Your task to perform on an android device: move an email to a new category in the gmail app Image 0: 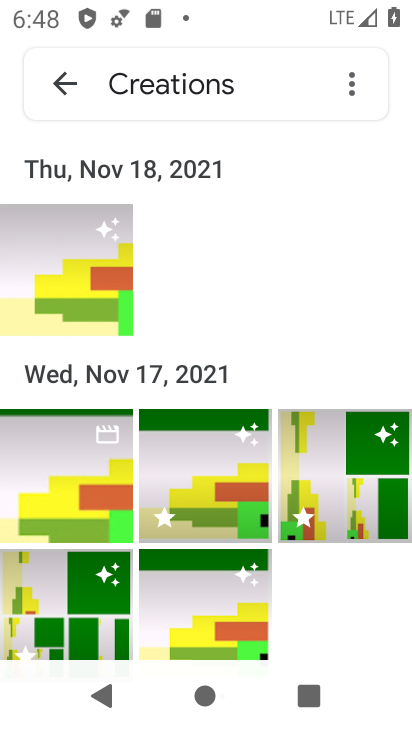
Step 0: press home button
Your task to perform on an android device: move an email to a new category in the gmail app Image 1: 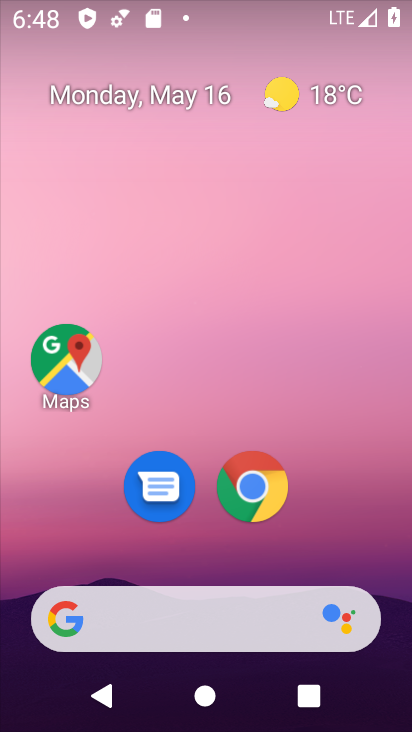
Step 1: drag from (361, 510) to (259, 124)
Your task to perform on an android device: move an email to a new category in the gmail app Image 2: 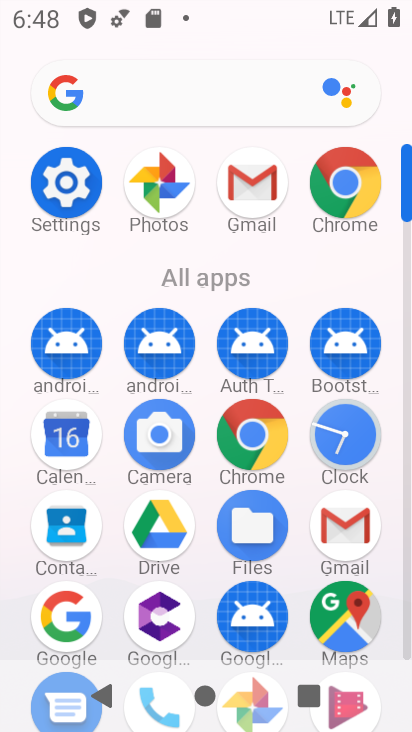
Step 2: click (248, 190)
Your task to perform on an android device: move an email to a new category in the gmail app Image 3: 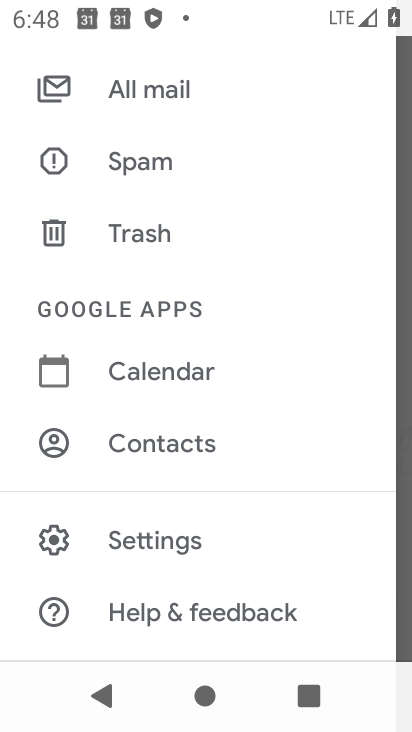
Step 3: click (177, 87)
Your task to perform on an android device: move an email to a new category in the gmail app Image 4: 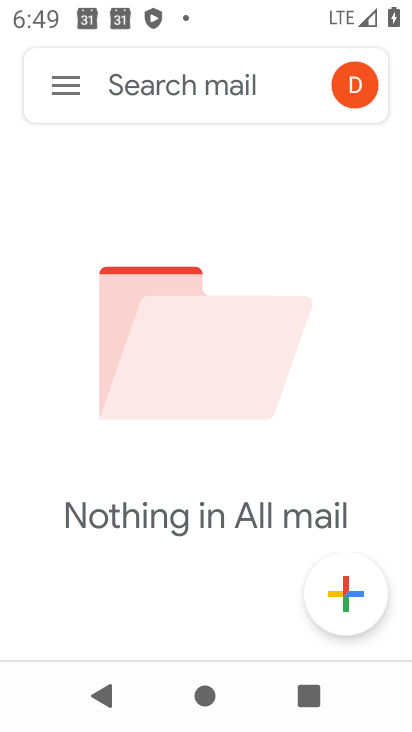
Step 4: click (62, 84)
Your task to perform on an android device: move an email to a new category in the gmail app Image 5: 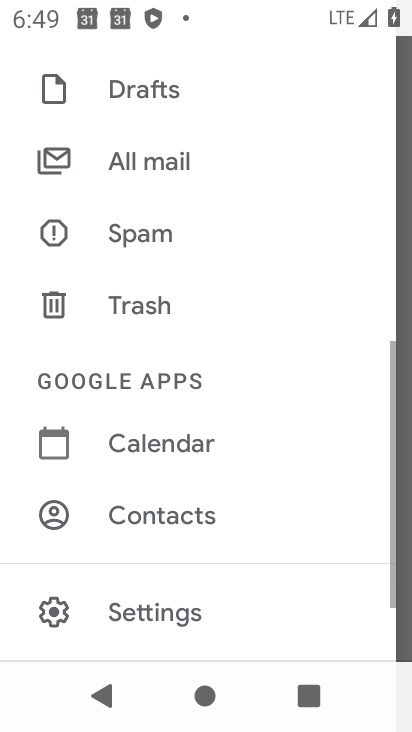
Step 5: task complete